Your task to perform on an android device: toggle notification dots Image 0: 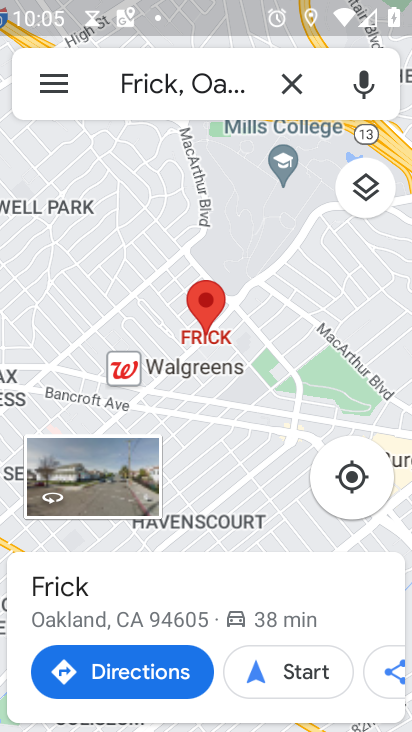
Step 0: press back button
Your task to perform on an android device: toggle notification dots Image 1: 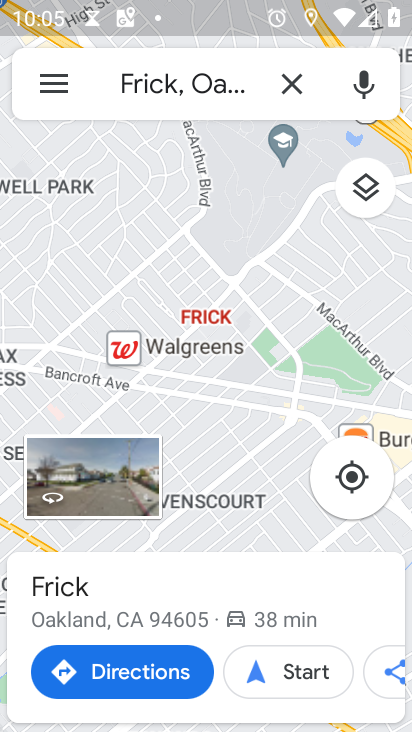
Step 1: press back button
Your task to perform on an android device: toggle notification dots Image 2: 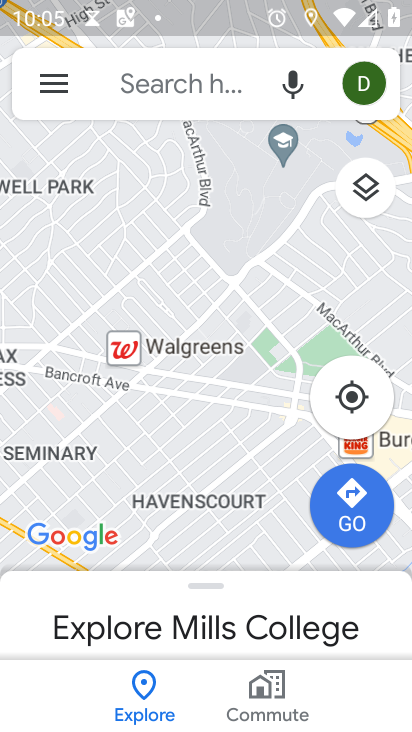
Step 2: press back button
Your task to perform on an android device: toggle notification dots Image 3: 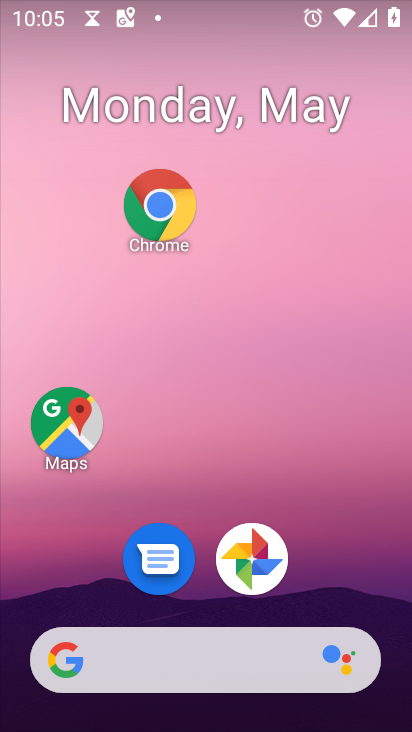
Step 3: drag from (242, 675) to (172, 136)
Your task to perform on an android device: toggle notification dots Image 4: 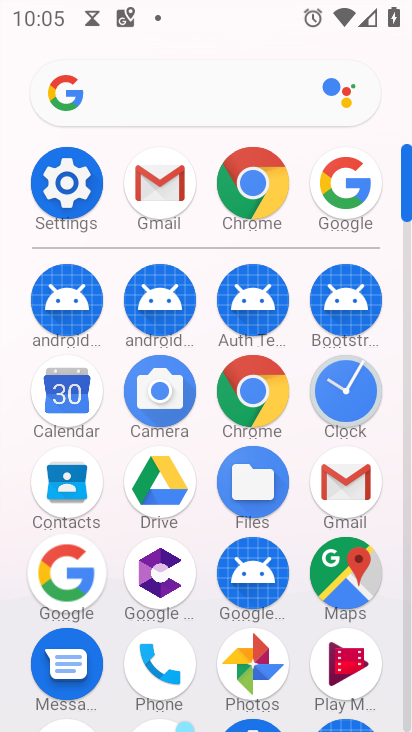
Step 4: click (59, 180)
Your task to perform on an android device: toggle notification dots Image 5: 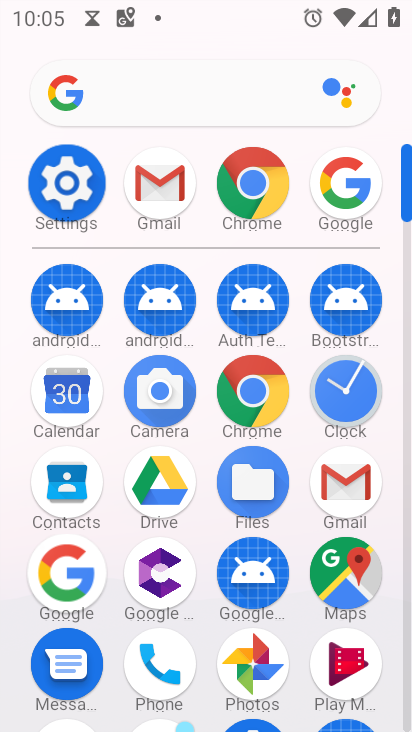
Step 5: click (59, 180)
Your task to perform on an android device: toggle notification dots Image 6: 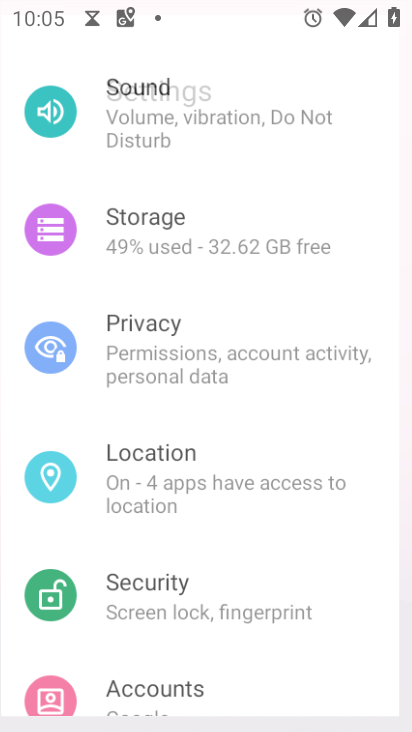
Step 6: click (59, 180)
Your task to perform on an android device: toggle notification dots Image 7: 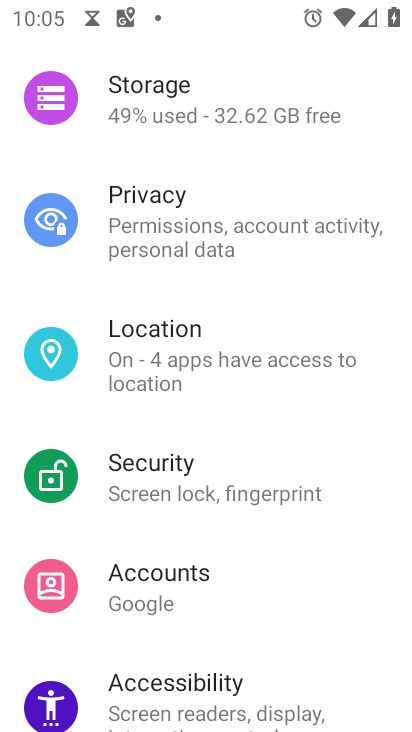
Step 7: click (68, 174)
Your task to perform on an android device: toggle notification dots Image 8: 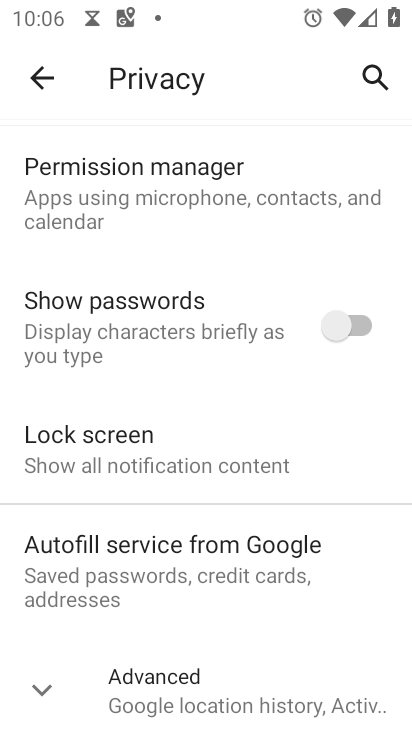
Step 8: click (43, 92)
Your task to perform on an android device: toggle notification dots Image 9: 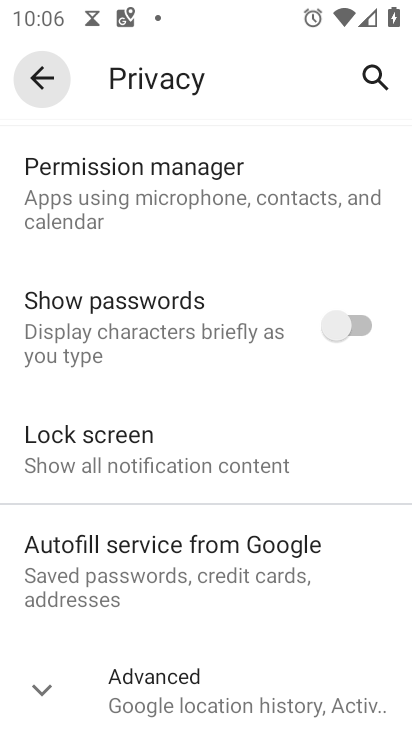
Step 9: click (43, 92)
Your task to perform on an android device: toggle notification dots Image 10: 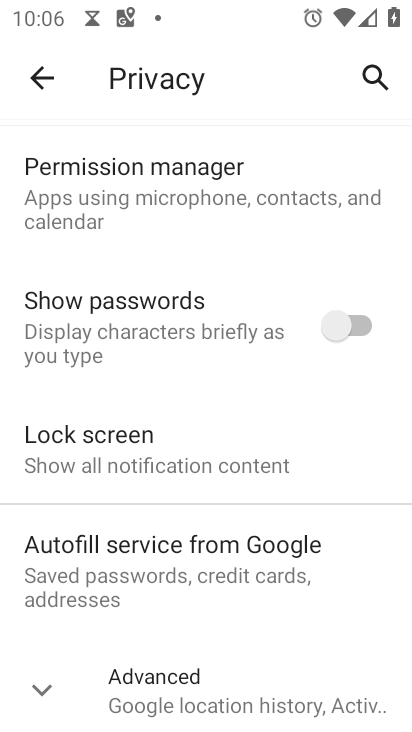
Step 10: click (43, 91)
Your task to perform on an android device: toggle notification dots Image 11: 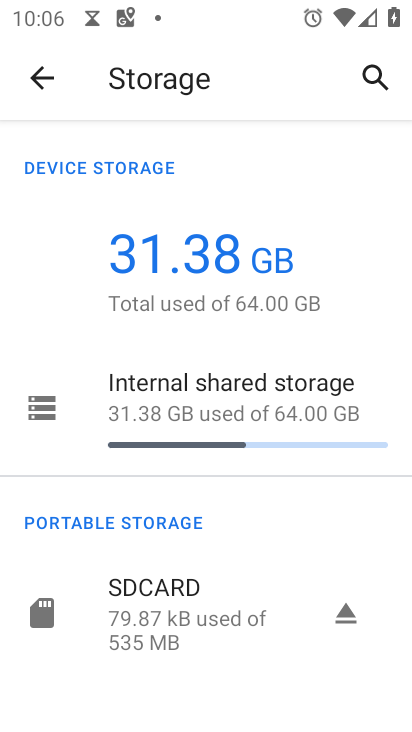
Step 11: click (41, 76)
Your task to perform on an android device: toggle notification dots Image 12: 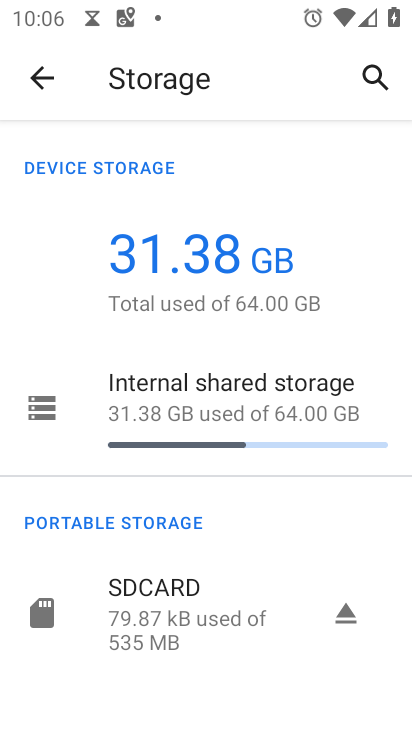
Step 12: click (41, 76)
Your task to perform on an android device: toggle notification dots Image 13: 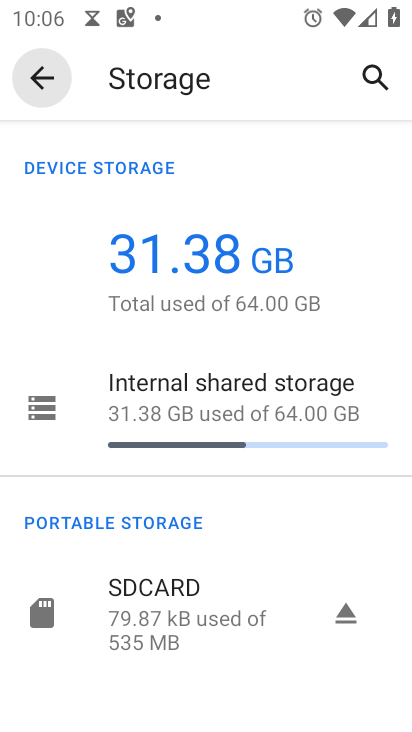
Step 13: click (42, 76)
Your task to perform on an android device: toggle notification dots Image 14: 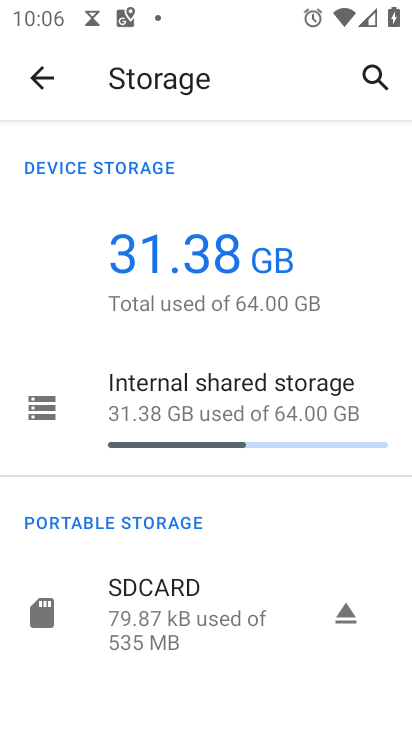
Step 14: click (37, 83)
Your task to perform on an android device: toggle notification dots Image 15: 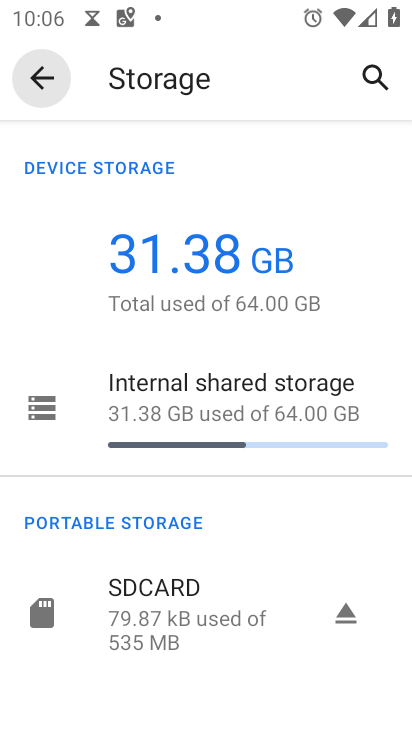
Step 15: click (38, 86)
Your task to perform on an android device: toggle notification dots Image 16: 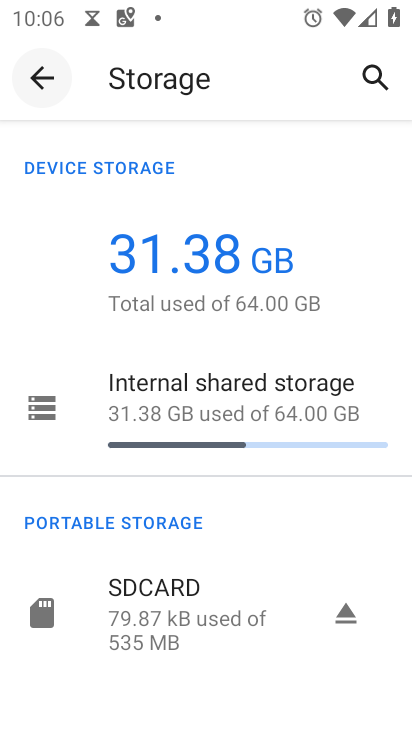
Step 16: click (39, 82)
Your task to perform on an android device: toggle notification dots Image 17: 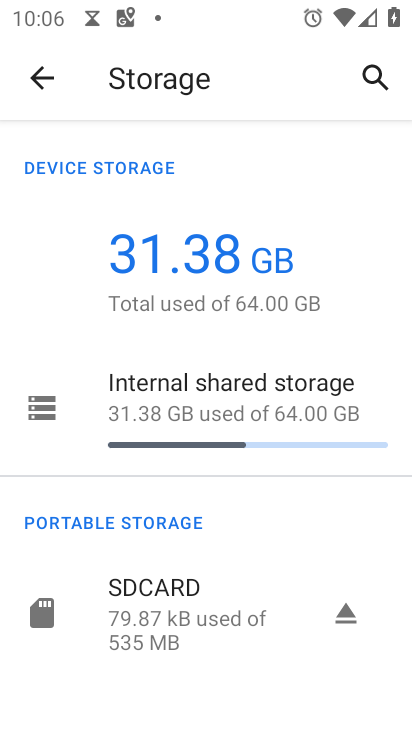
Step 17: click (49, 85)
Your task to perform on an android device: toggle notification dots Image 18: 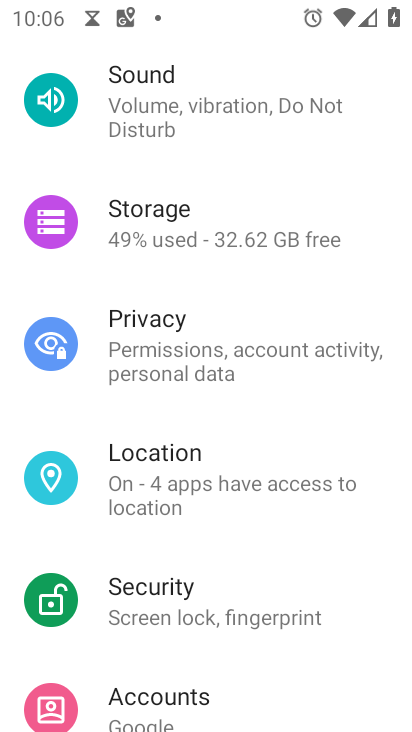
Step 18: drag from (163, 617) to (163, 324)
Your task to perform on an android device: toggle notification dots Image 19: 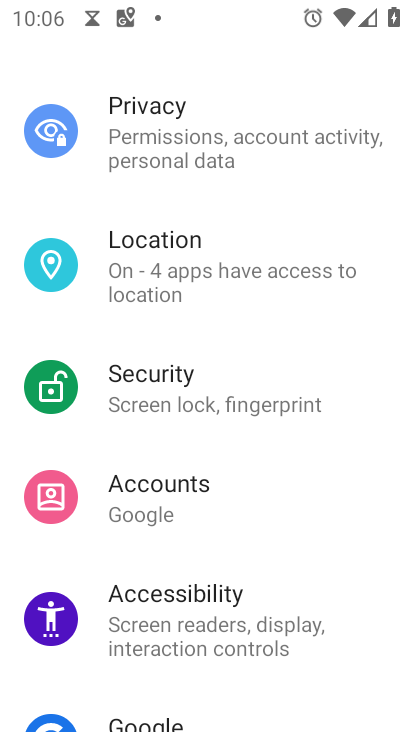
Step 19: drag from (194, 488) to (191, 288)
Your task to perform on an android device: toggle notification dots Image 20: 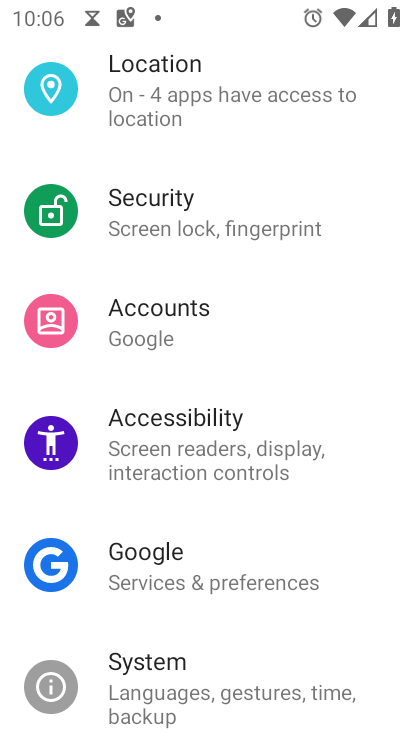
Step 20: drag from (191, 231) to (195, 618)
Your task to perform on an android device: toggle notification dots Image 21: 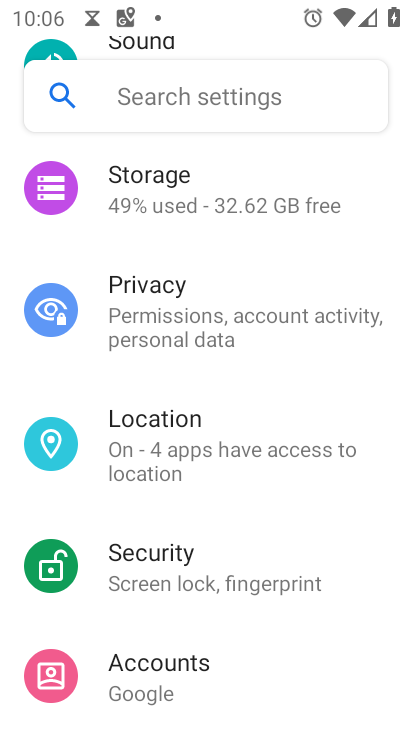
Step 21: drag from (140, 216) to (188, 460)
Your task to perform on an android device: toggle notification dots Image 22: 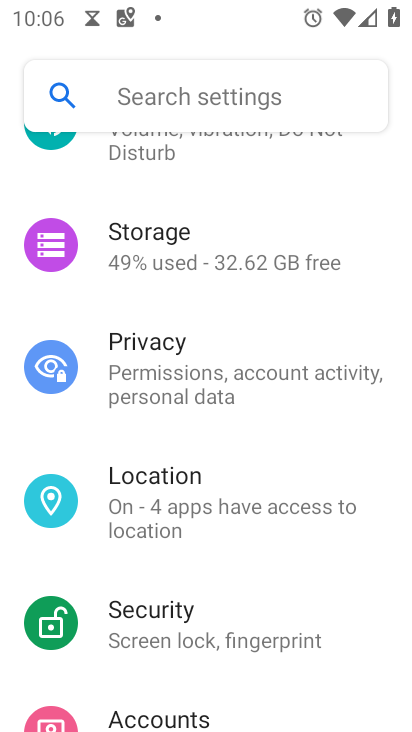
Step 22: drag from (198, 224) to (210, 509)
Your task to perform on an android device: toggle notification dots Image 23: 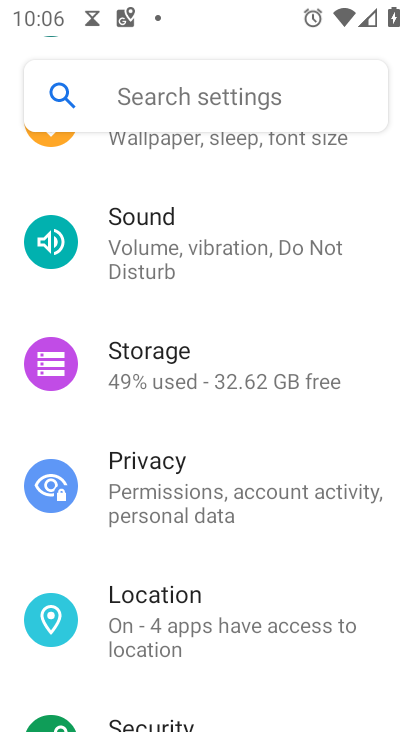
Step 23: click (183, 712)
Your task to perform on an android device: toggle notification dots Image 24: 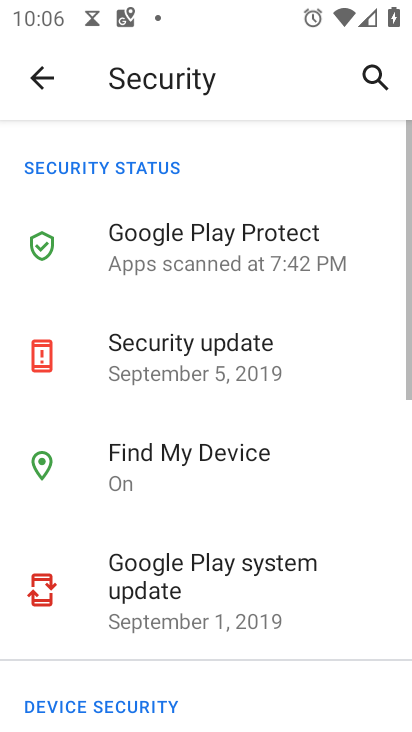
Step 24: drag from (162, 241) to (206, 549)
Your task to perform on an android device: toggle notification dots Image 25: 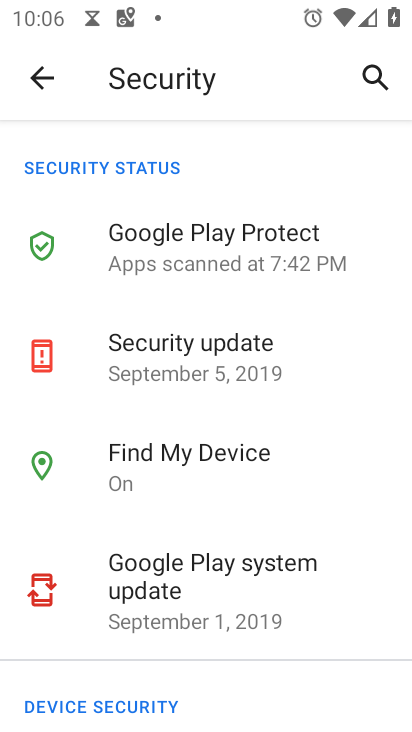
Step 25: click (44, 79)
Your task to perform on an android device: toggle notification dots Image 26: 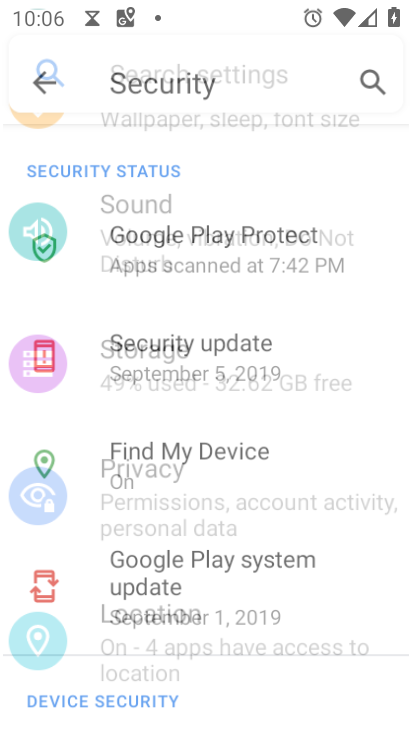
Step 26: click (43, 79)
Your task to perform on an android device: toggle notification dots Image 27: 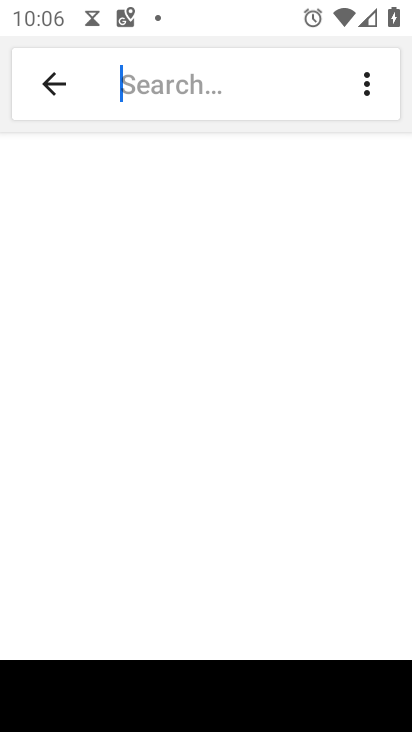
Step 27: click (63, 84)
Your task to perform on an android device: toggle notification dots Image 28: 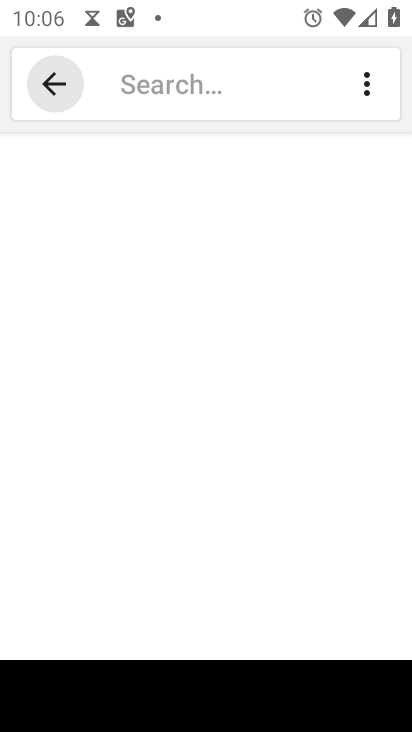
Step 28: click (63, 84)
Your task to perform on an android device: toggle notification dots Image 29: 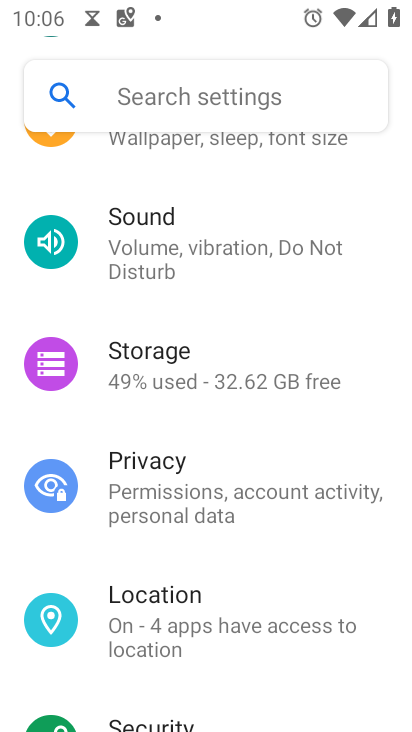
Step 29: drag from (129, 202) to (206, 708)
Your task to perform on an android device: toggle notification dots Image 30: 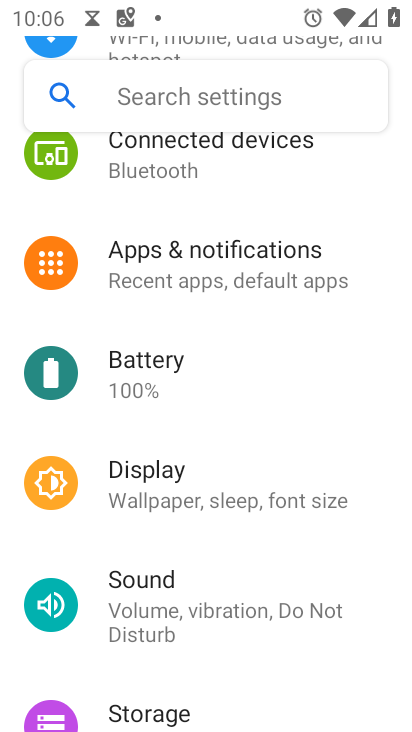
Step 30: click (225, 278)
Your task to perform on an android device: toggle notification dots Image 31: 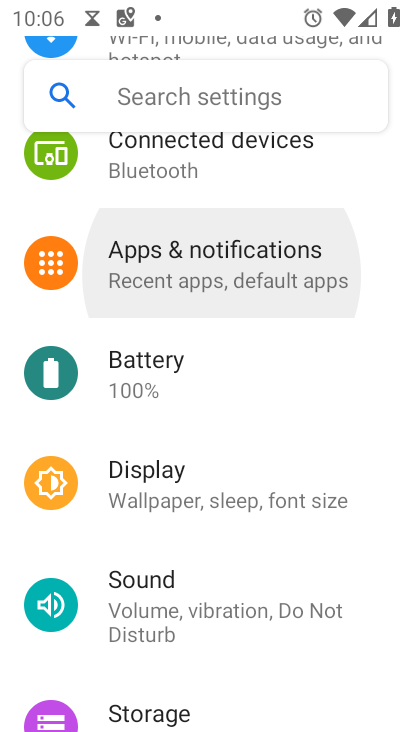
Step 31: click (225, 277)
Your task to perform on an android device: toggle notification dots Image 32: 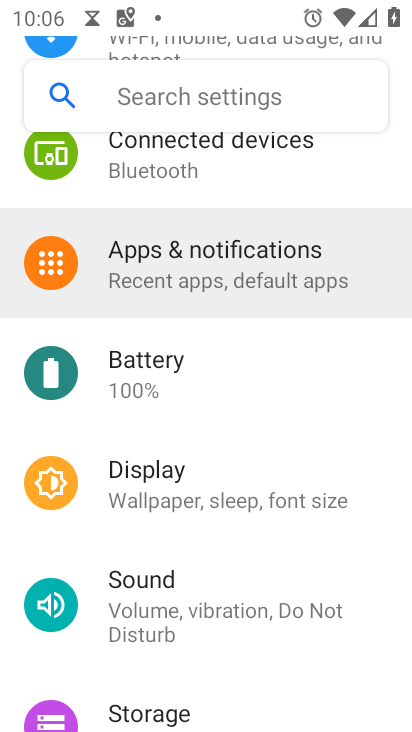
Step 32: click (226, 276)
Your task to perform on an android device: toggle notification dots Image 33: 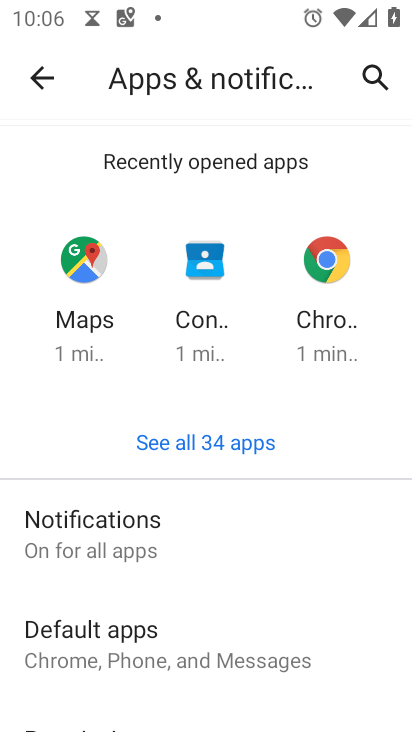
Step 33: click (95, 525)
Your task to perform on an android device: toggle notification dots Image 34: 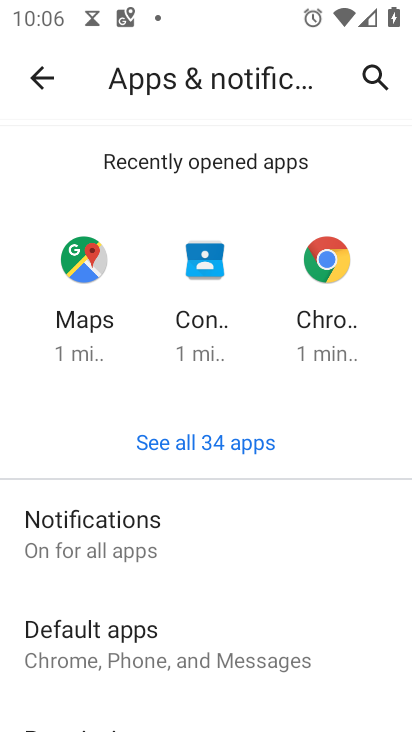
Step 34: click (95, 525)
Your task to perform on an android device: toggle notification dots Image 35: 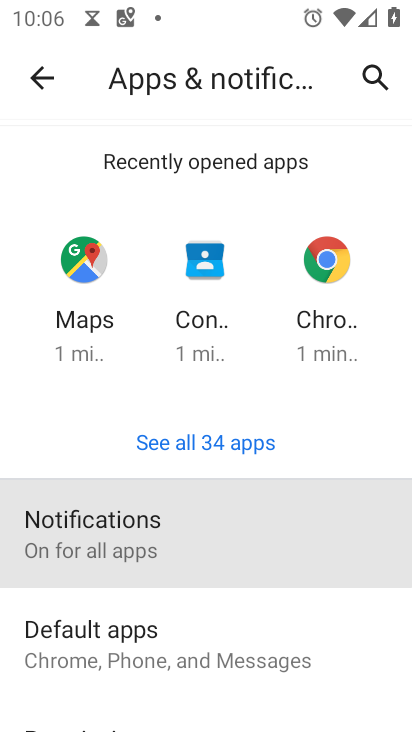
Step 35: click (95, 525)
Your task to perform on an android device: toggle notification dots Image 36: 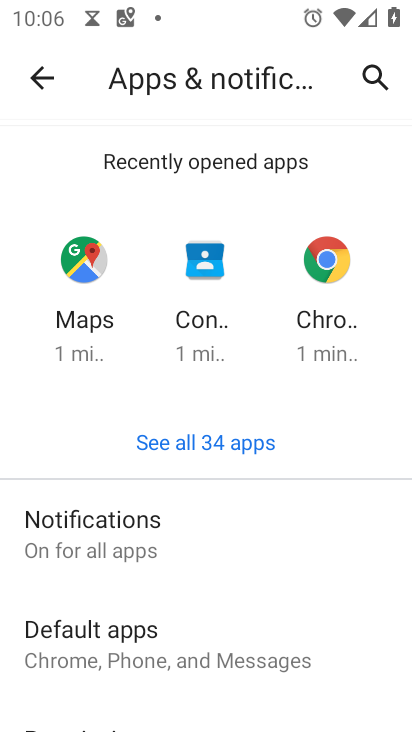
Step 36: click (95, 525)
Your task to perform on an android device: toggle notification dots Image 37: 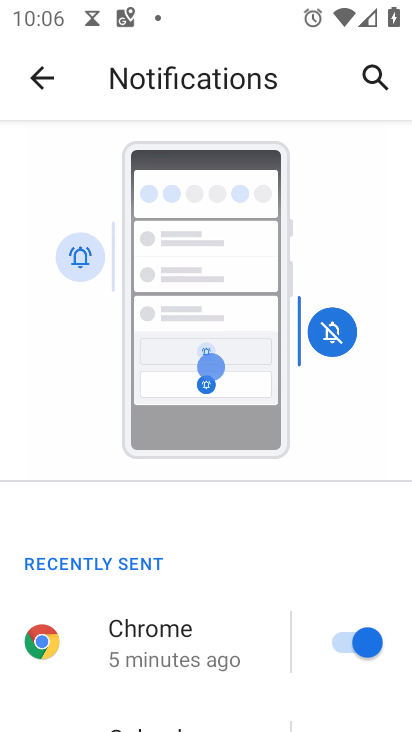
Step 37: drag from (163, 555) to (181, 180)
Your task to perform on an android device: toggle notification dots Image 38: 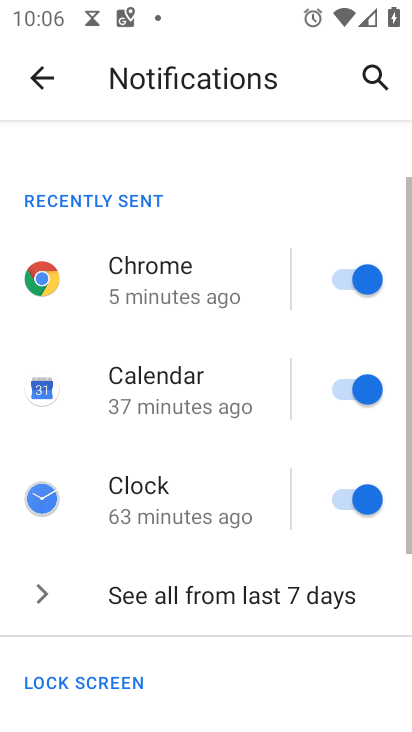
Step 38: drag from (198, 482) to (198, 162)
Your task to perform on an android device: toggle notification dots Image 39: 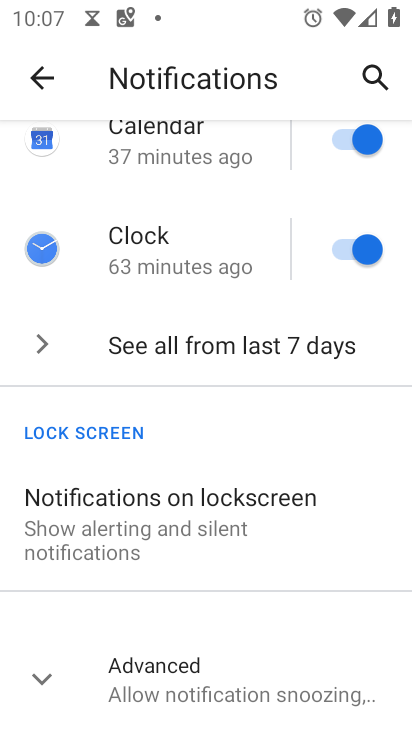
Step 39: click (161, 675)
Your task to perform on an android device: toggle notification dots Image 40: 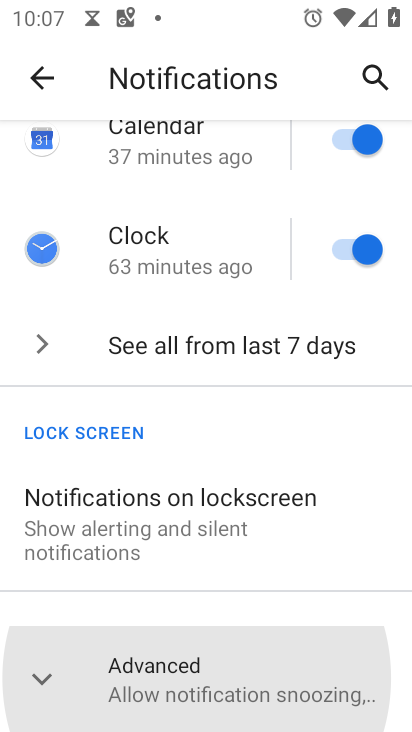
Step 40: click (161, 675)
Your task to perform on an android device: toggle notification dots Image 41: 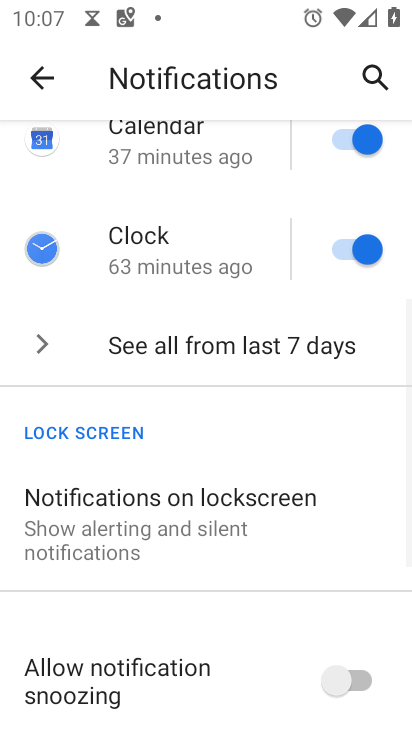
Step 41: drag from (234, 609) to (230, 220)
Your task to perform on an android device: toggle notification dots Image 42: 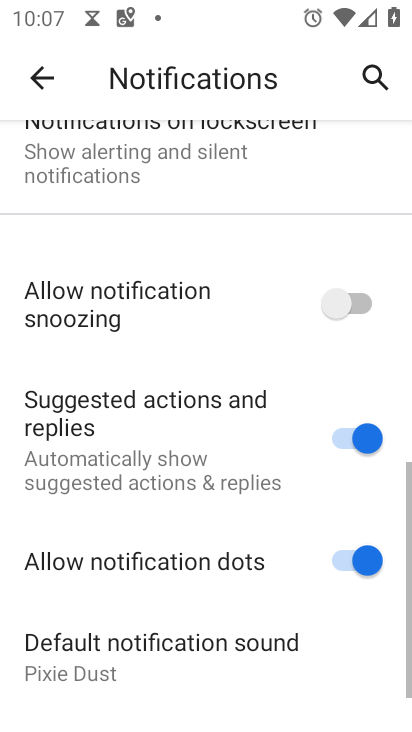
Step 42: drag from (214, 436) to (214, 113)
Your task to perform on an android device: toggle notification dots Image 43: 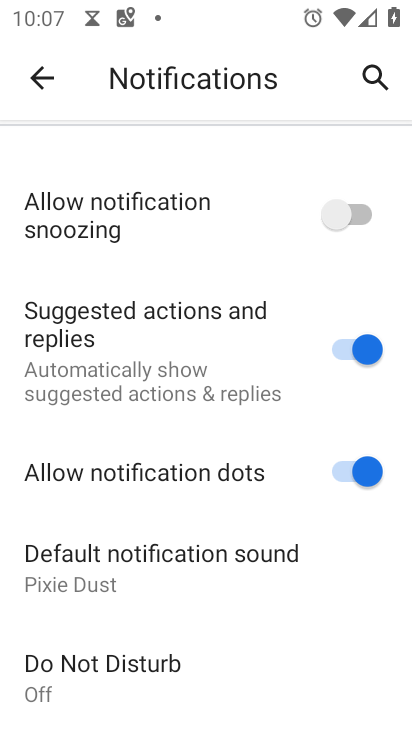
Step 43: click (370, 462)
Your task to perform on an android device: toggle notification dots Image 44: 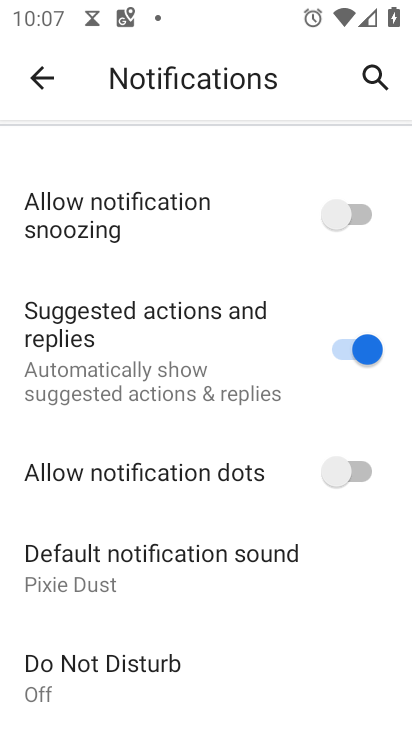
Step 44: task complete